Your task to perform on an android device: turn pop-ups off in chrome Image 0: 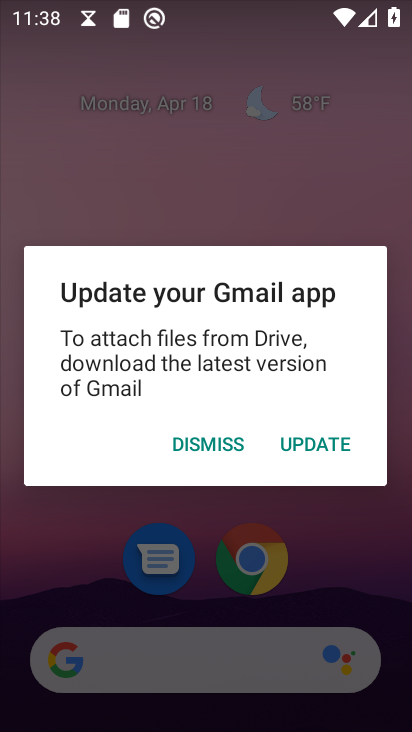
Step 0: press home button
Your task to perform on an android device: turn pop-ups off in chrome Image 1: 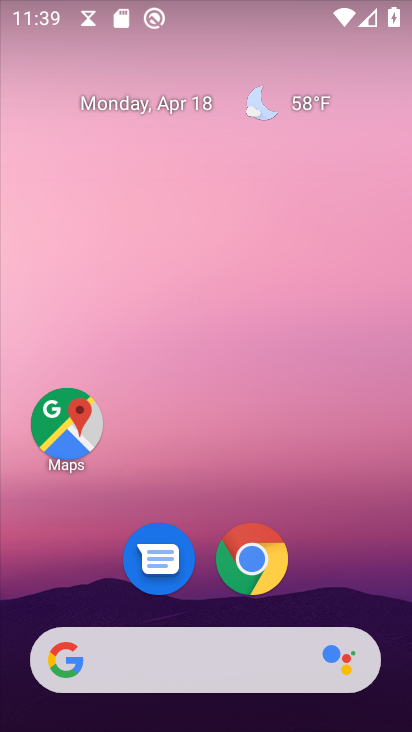
Step 1: click (255, 570)
Your task to perform on an android device: turn pop-ups off in chrome Image 2: 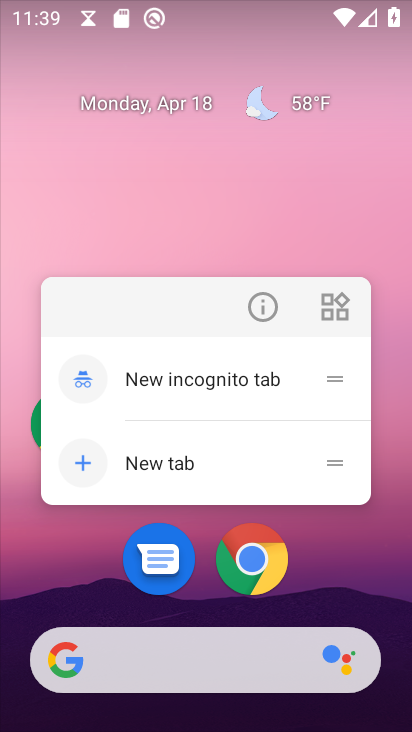
Step 2: click (255, 570)
Your task to perform on an android device: turn pop-ups off in chrome Image 3: 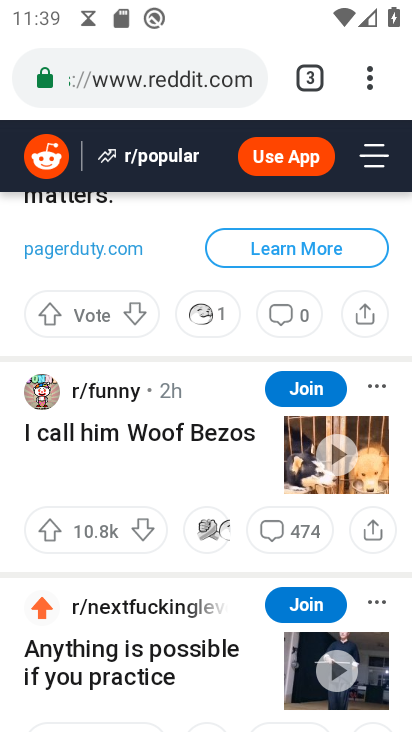
Step 3: click (369, 76)
Your task to perform on an android device: turn pop-ups off in chrome Image 4: 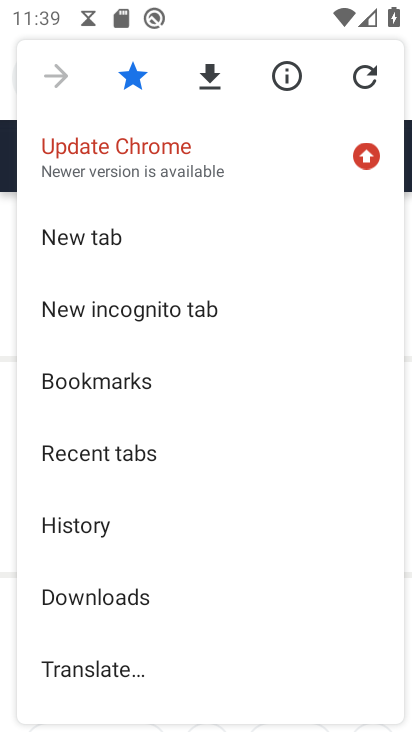
Step 4: drag from (156, 620) to (173, 197)
Your task to perform on an android device: turn pop-ups off in chrome Image 5: 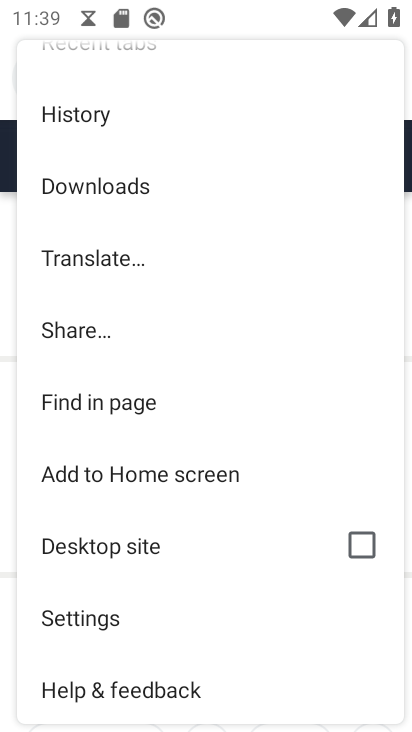
Step 5: click (75, 619)
Your task to perform on an android device: turn pop-ups off in chrome Image 6: 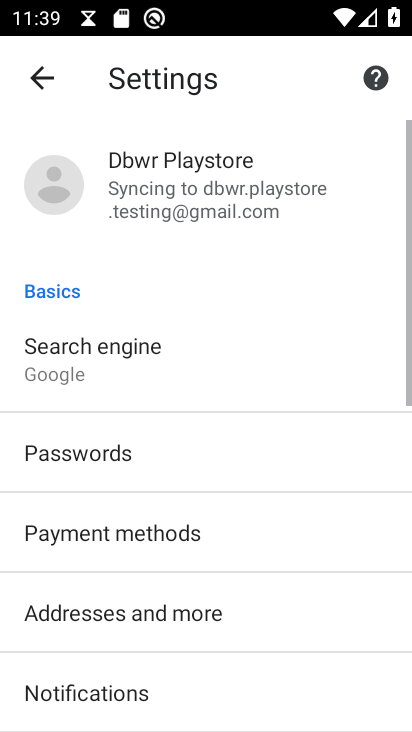
Step 6: drag from (92, 664) to (153, 274)
Your task to perform on an android device: turn pop-ups off in chrome Image 7: 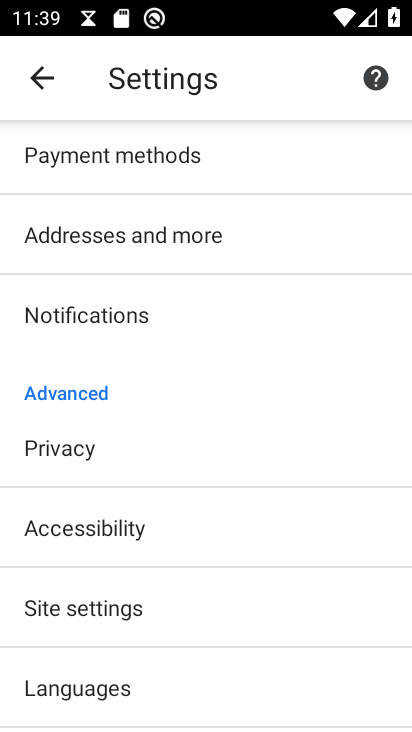
Step 7: click (47, 605)
Your task to perform on an android device: turn pop-ups off in chrome Image 8: 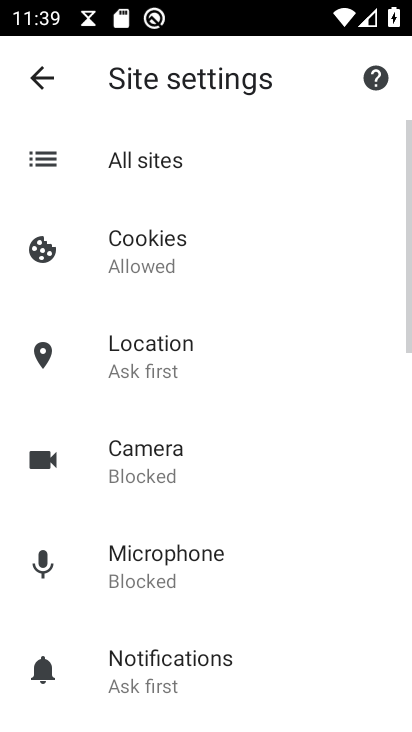
Step 8: drag from (189, 579) to (193, 254)
Your task to perform on an android device: turn pop-ups off in chrome Image 9: 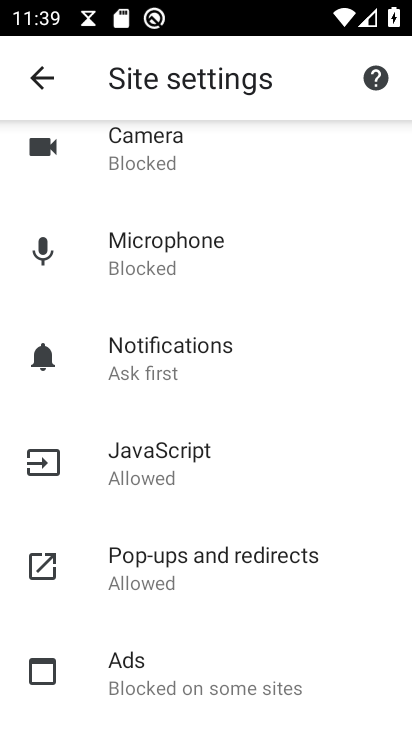
Step 9: click (148, 576)
Your task to perform on an android device: turn pop-ups off in chrome Image 10: 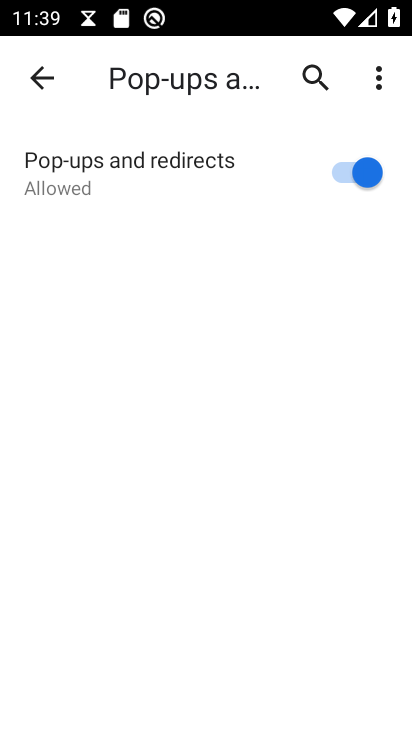
Step 10: click (367, 177)
Your task to perform on an android device: turn pop-ups off in chrome Image 11: 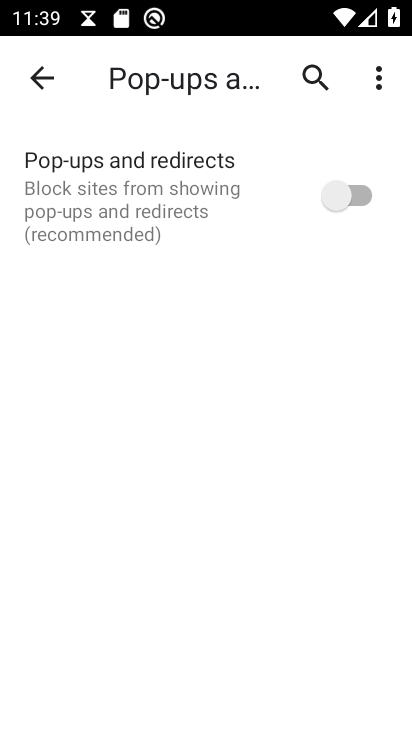
Step 11: task complete